Your task to perform on an android device: Do I have any events today? Image 0: 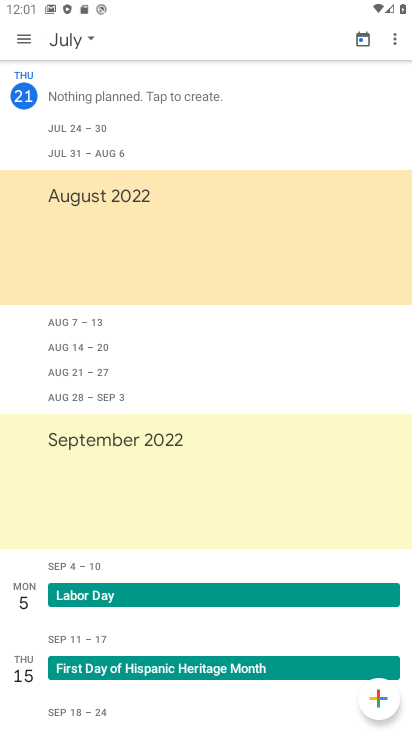
Step 0: press home button
Your task to perform on an android device: Do I have any events today? Image 1: 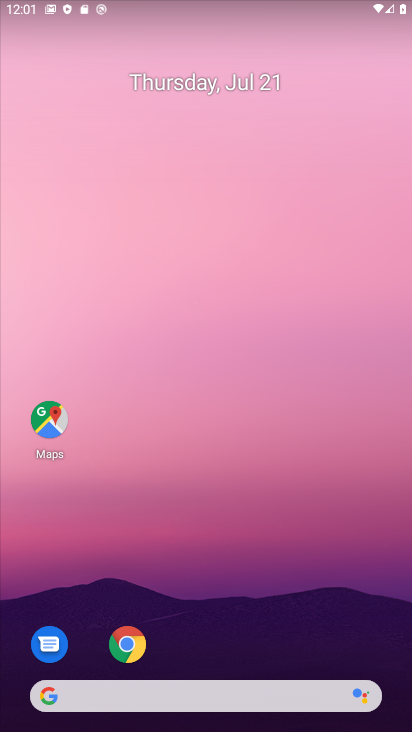
Step 1: drag from (259, 672) to (226, 145)
Your task to perform on an android device: Do I have any events today? Image 2: 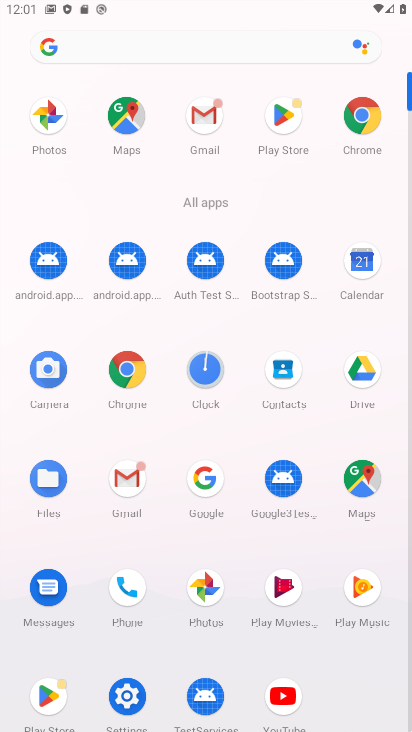
Step 2: click (350, 280)
Your task to perform on an android device: Do I have any events today? Image 3: 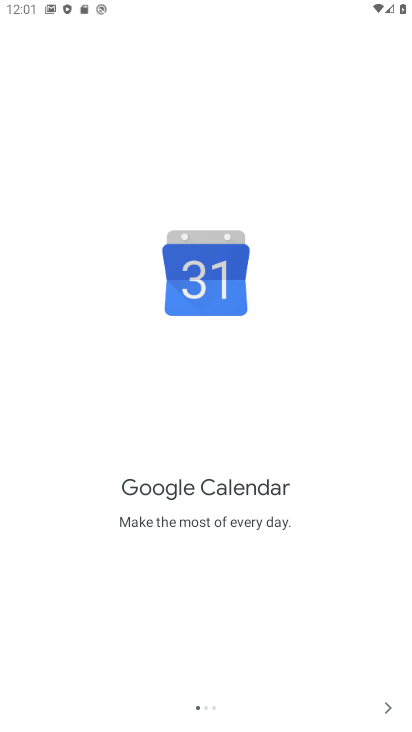
Step 3: click (385, 694)
Your task to perform on an android device: Do I have any events today? Image 4: 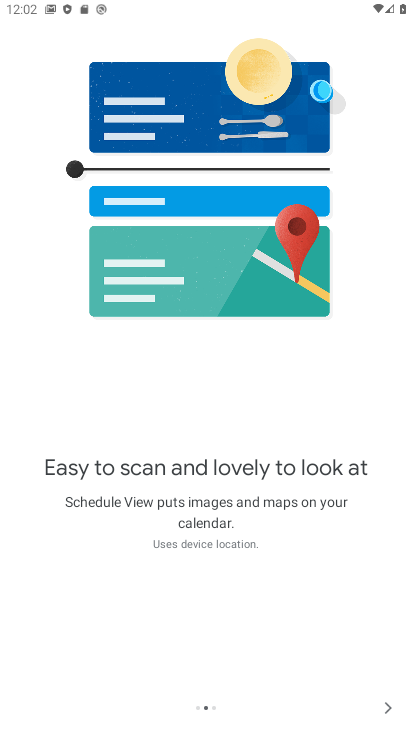
Step 4: click (385, 694)
Your task to perform on an android device: Do I have any events today? Image 5: 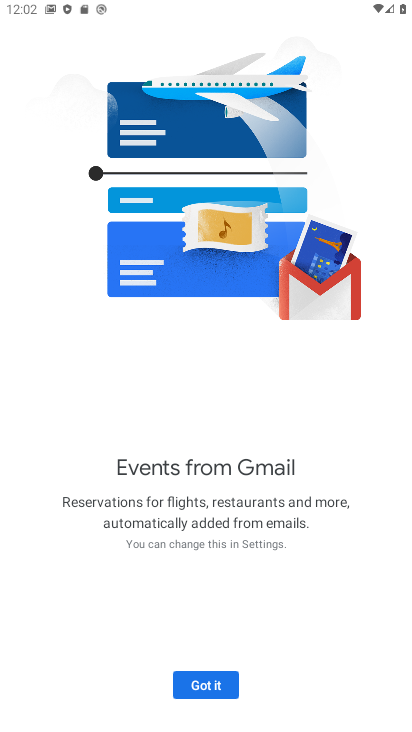
Step 5: click (217, 683)
Your task to perform on an android device: Do I have any events today? Image 6: 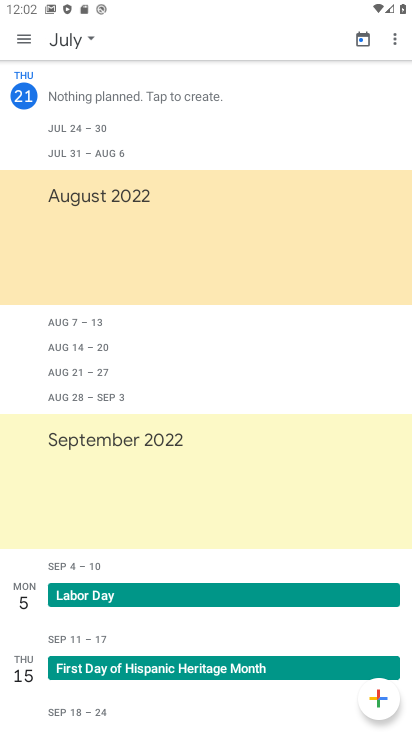
Step 6: click (22, 93)
Your task to perform on an android device: Do I have any events today? Image 7: 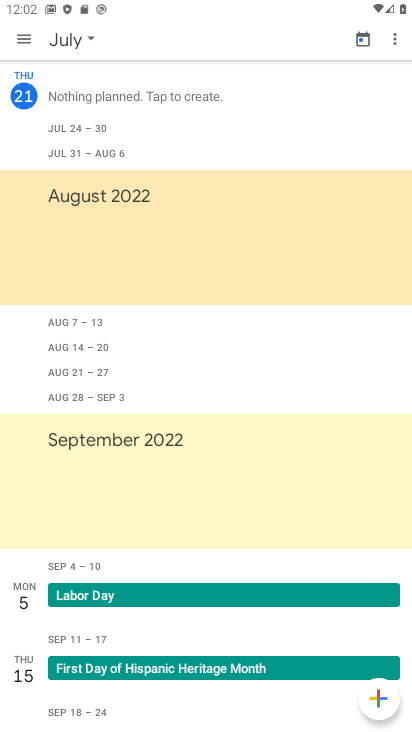
Step 7: click (22, 93)
Your task to perform on an android device: Do I have any events today? Image 8: 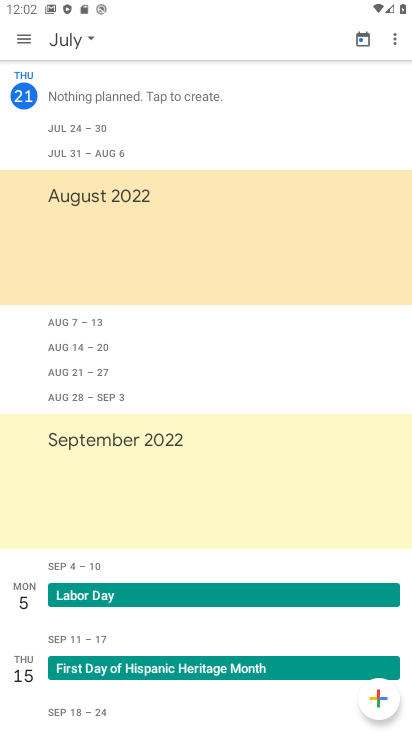
Step 8: task complete